Your task to perform on an android device: Do I have any events tomorrow? Image 0: 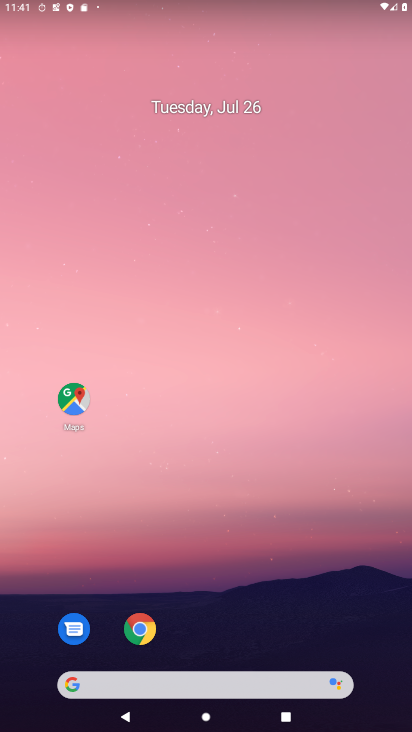
Step 0: drag from (318, 640) to (202, 82)
Your task to perform on an android device: Do I have any events tomorrow? Image 1: 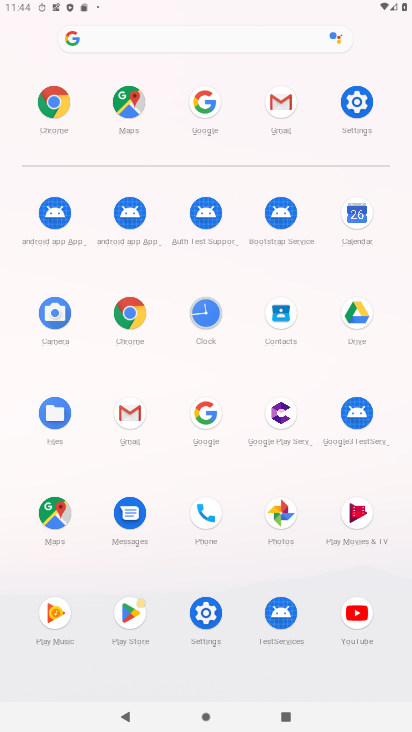
Step 1: click (351, 212)
Your task to perform on an android device: Do I have any events tomorrow? Image 2: 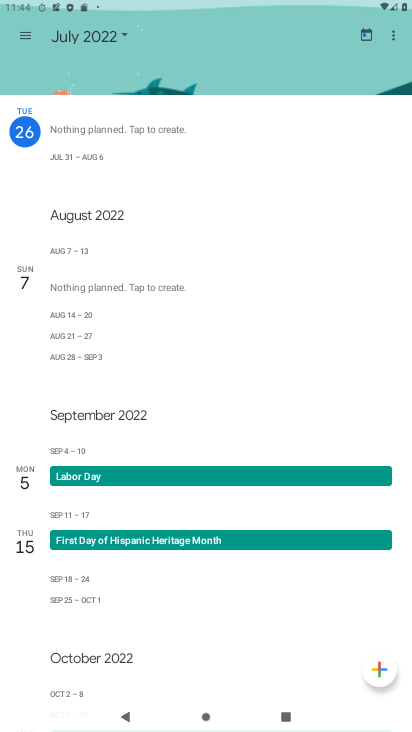
Step 2: task complete